Your task to perform on an android device: turn smart compose on in the gmail app Image 0: 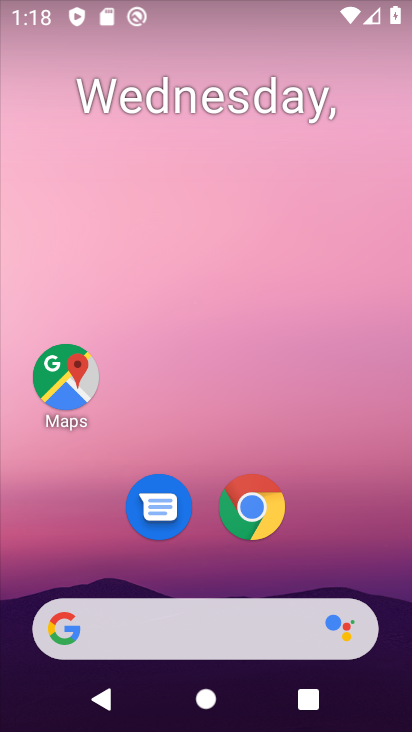
Step 0: drag from (296, 496) to (371, 130)
Your task to perform on an android device: turn smart compose on in the gmail app Image 1: 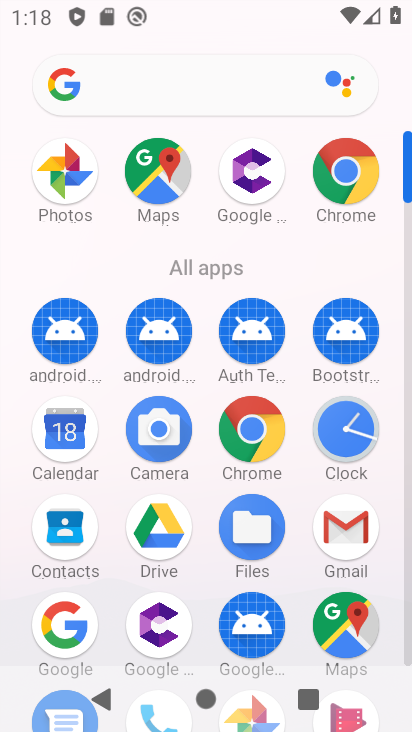
Step 1: click (337, 547)
Your task to perform on an android device: turn smart compose on in the gmail app Image 2: 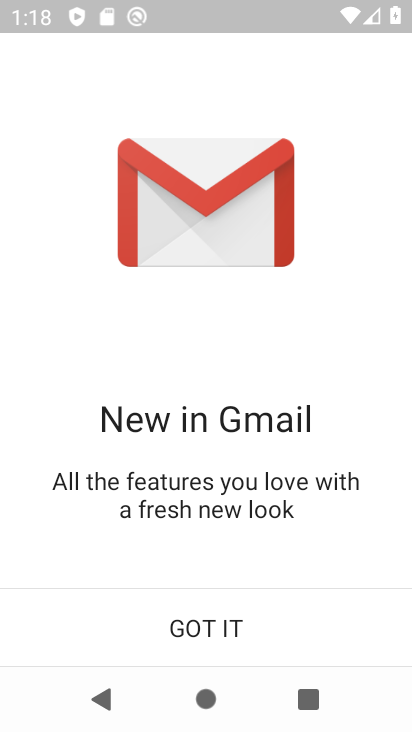
Step 2: click (225, 641)
Your task to perform on an android device: turn smart compose on in the gmail app Image 3: 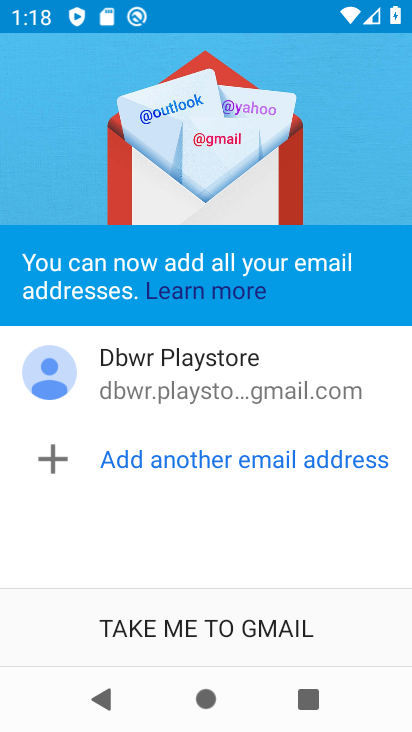
Step 3: click (225, 641)
Your task to perform on an android device: turn smart compose on in the gmail app Image 4: 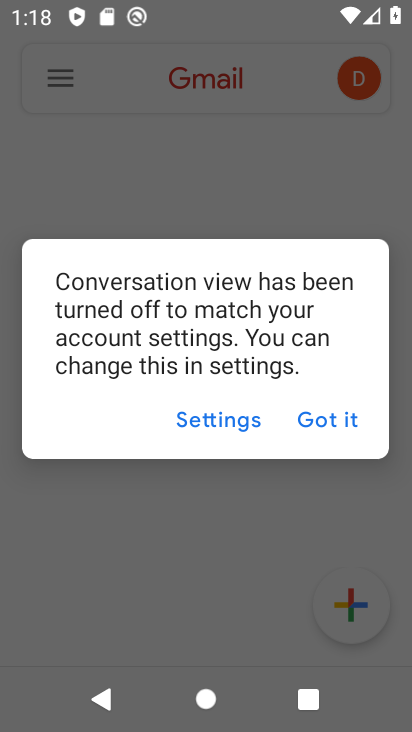
Step 4: click (306, 429)
Your task to perform on an android device: turn smart compose on in the gmail app Image 5: 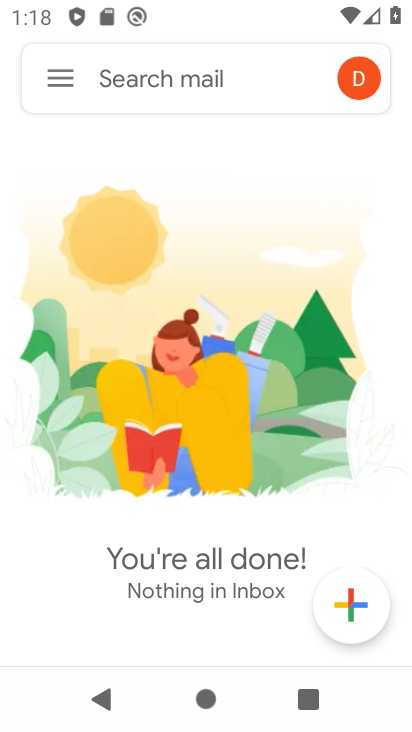
Step 5: click (72, 76)
Your task to perform on an android device: turn smart compose on in the gmail app Image 6: 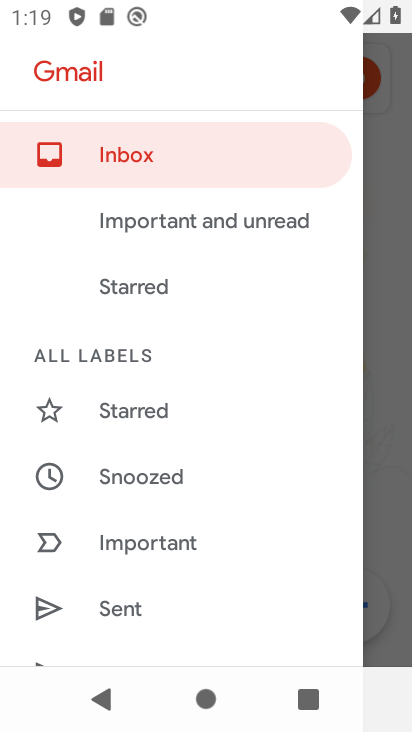
Step 6: drag from (215, 615) to (249, 264)
Your task to perform on an android device: turn smart compose on in the gmail app Image 7: 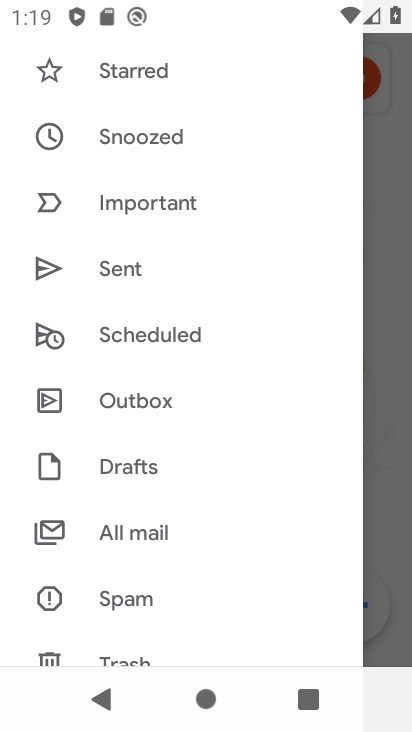
Step 7: drag from (177, 620) to (222, 375)
Your task to perform on an android device: turn smart compose on in the gmail app Image 8: 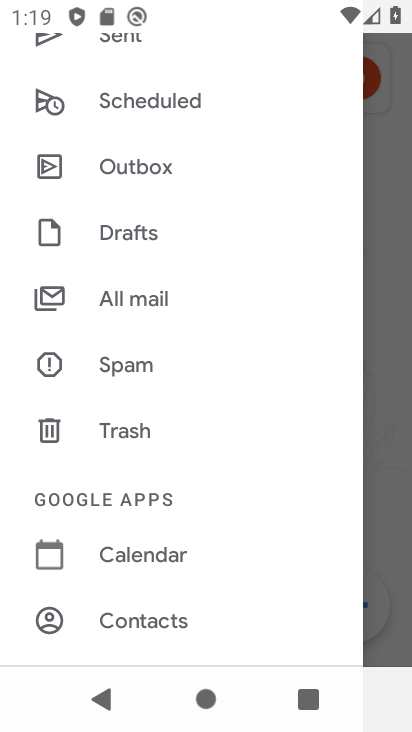
Step 8: drag from (173, 612) to (255, 366)
Your task to perform on an android device: turn smart compose on in the gmail app Image 9: 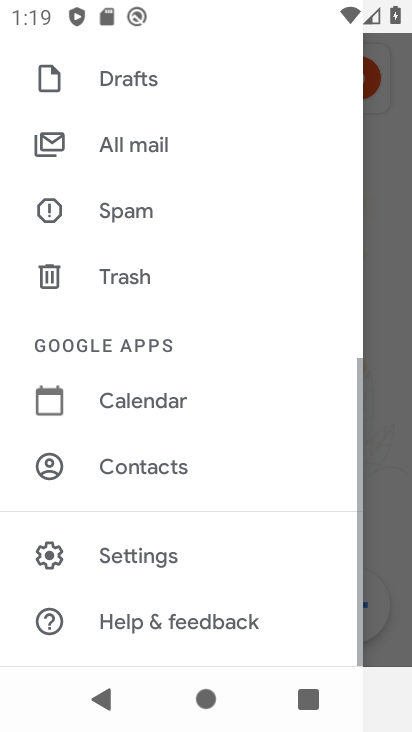
Step 9: click (179, 553)
Your task to perform on an android device: turn smart compose on in the gmail app Image 10: 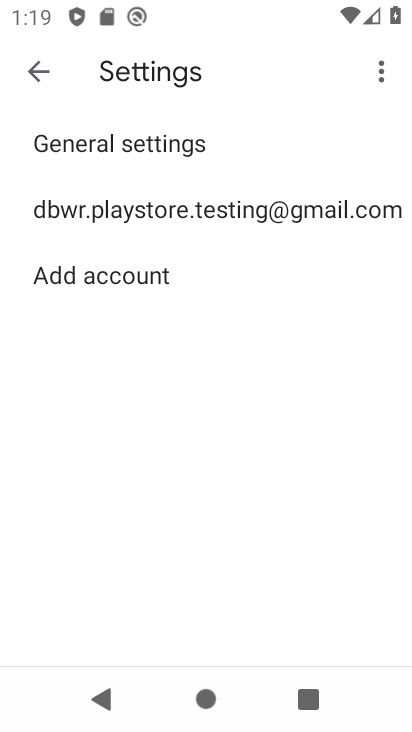
Step 10: click (194, 204)
Your task to perform on an android device: turn smart compose on in the gmail app Image 11: 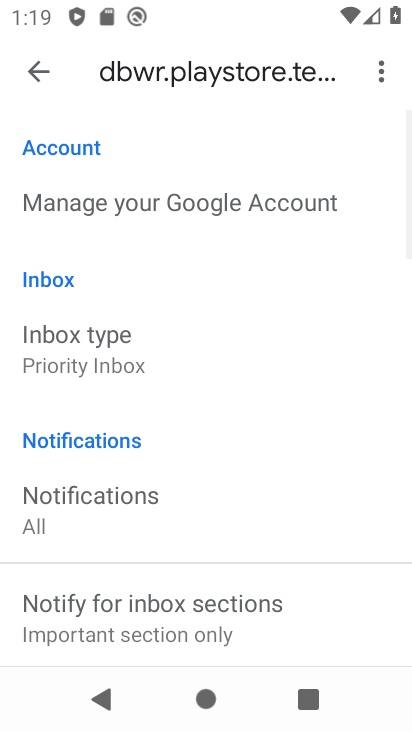
Step 11: task complete